Your task to perform on an android device: open chrome and create a bookmark for the current page Image 0: 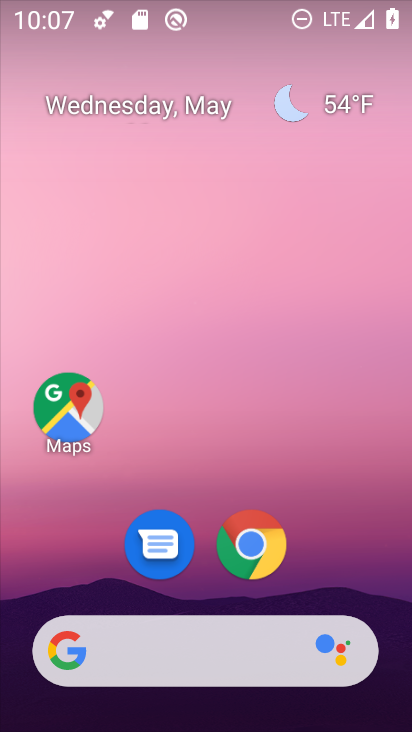
Step 0: click (231, 587)
Your task to perform on an android device: open chrome and create a bookmark for the current page Image 1: 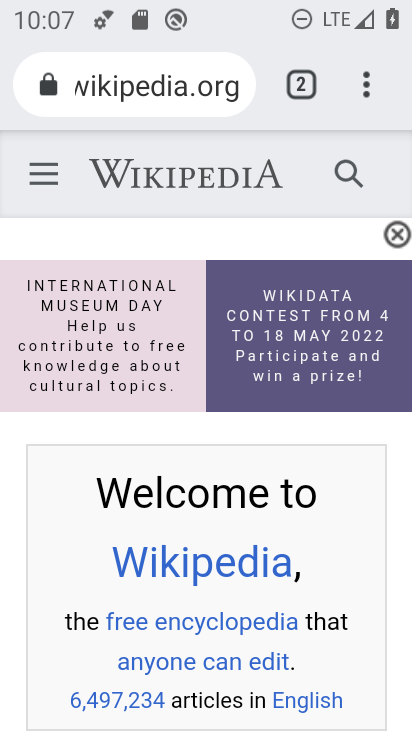
Step 1: click (367, 43)
Your task to perform on an android device: open chrome and create a bookmark for the current page Image 2: 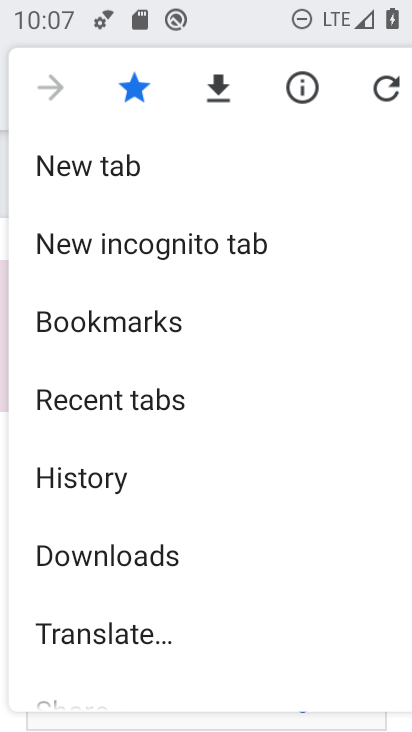
Step 2: task complete